Your task to perform on an android device: add a contact Image 0: 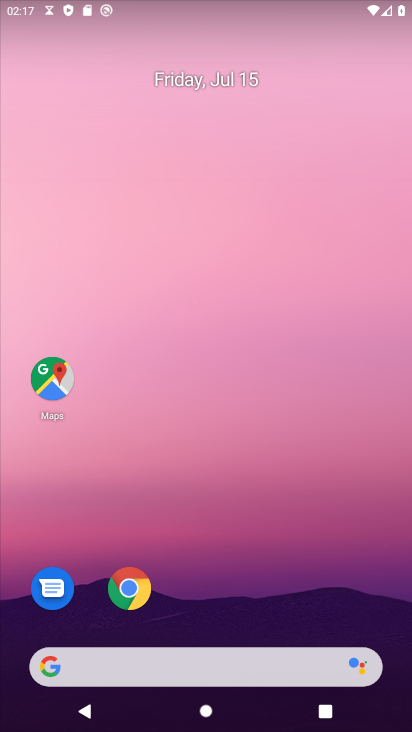
Step 0: press home button
Your task to perform on an android device: add a contact Image 1: 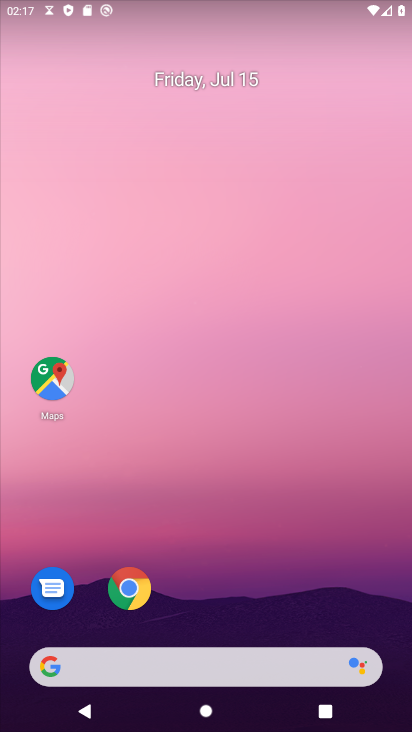
Step 1: click (344, 89)
Your task to perform on an android device: add a contact Image 2: 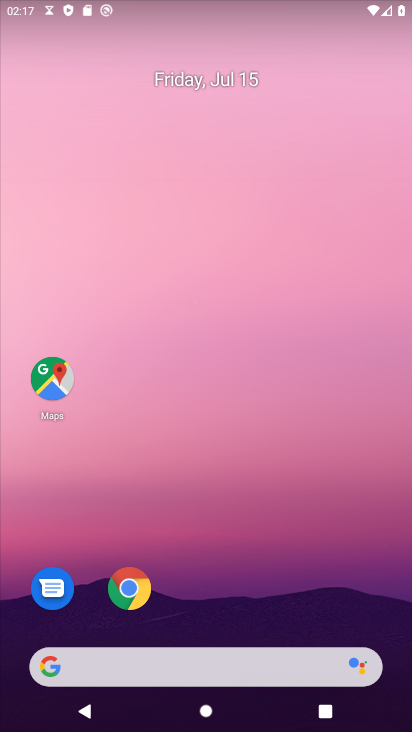
Step 2: drag from (211, 665) to (356, 124)
Your task to perform on an android device: add a contact Image 3: 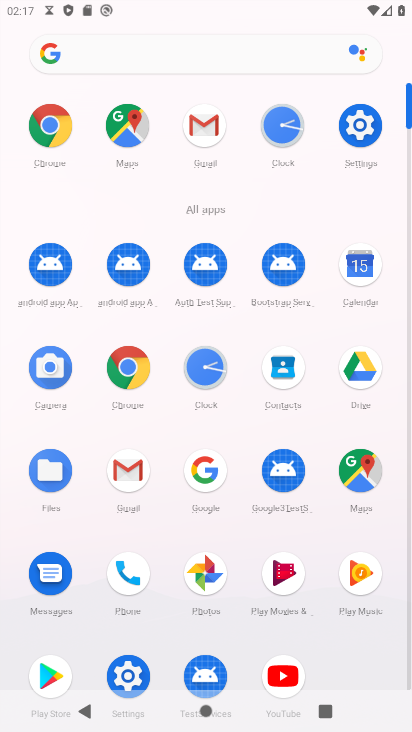
Step 3: click (285, 371)
Your task to perform on an android device: add a contact Image 4: 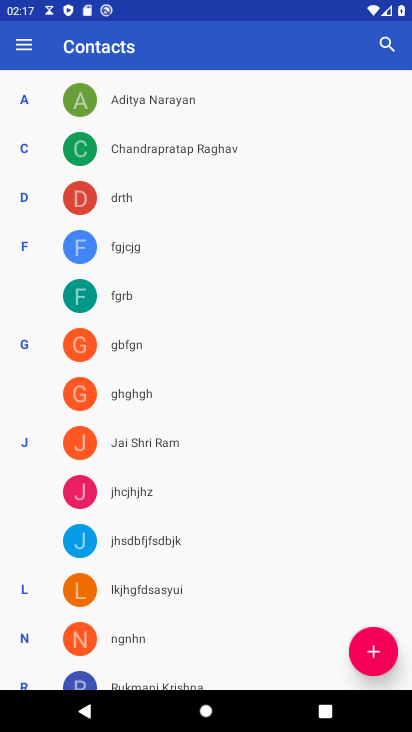
Step 4: click (374, 653)
Your task to perform on an android device: add a contact Image 5: 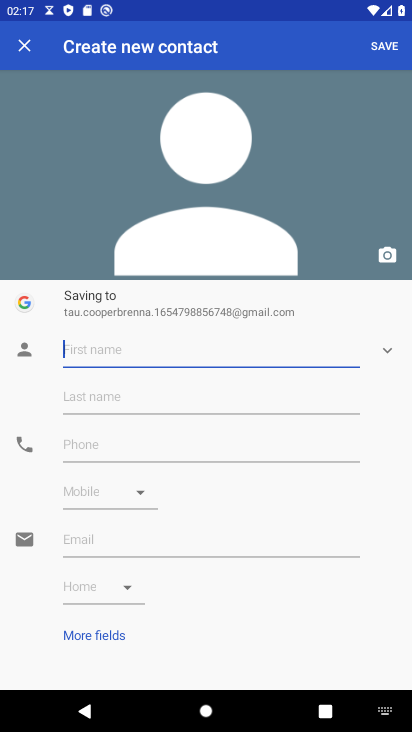
Step 5: type "mjkkiuyyhjh"
Your task to perform on an android device: add a contact Image 6: 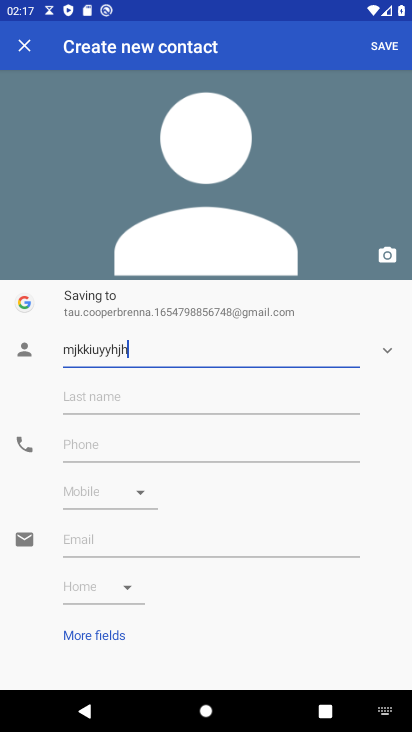
Step 6: click (88, 445)
Your task to perform on an android device: add a contact Image 7: 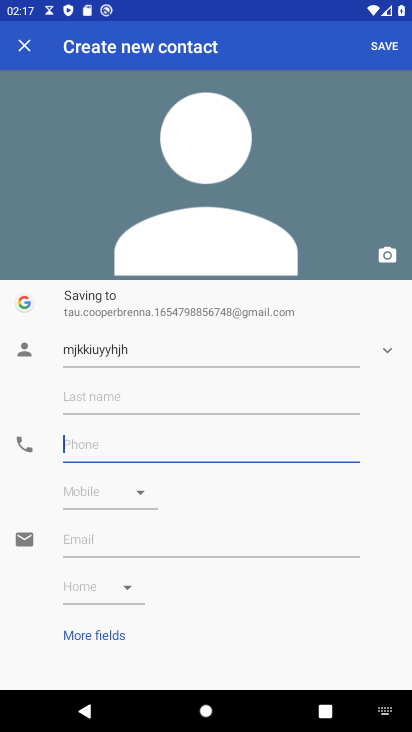
Step 7: type "75887665577"
Your task to perform on an android device: add a contact Image 8: 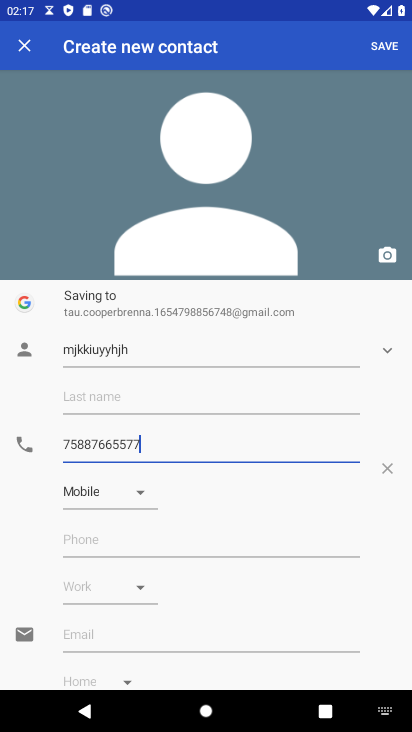
Step 8: click (382, 45)
Your task to perform on an android device: add a contact Image 9: 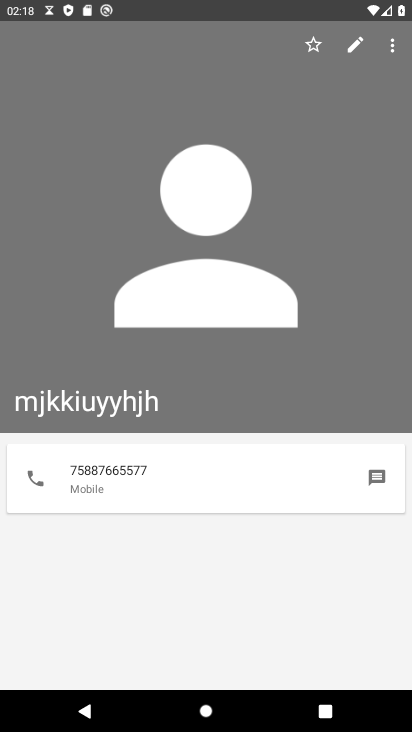
Step 9: task complete